Your task to perform on an android device: Go to eBay Image 0: 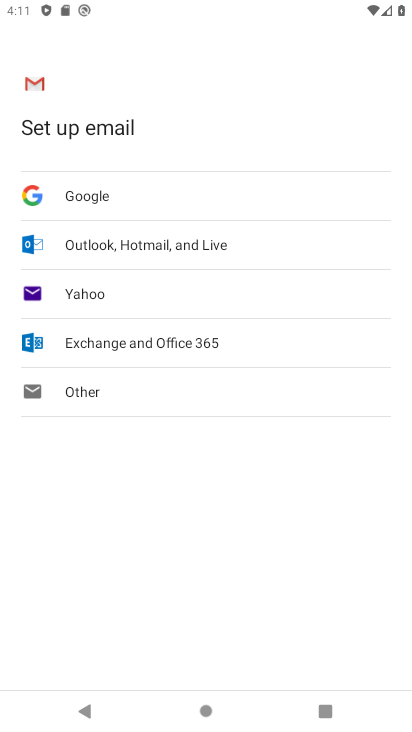
Step 0: press home button
Your task to perform on an android device: Go to eBay Image 1: 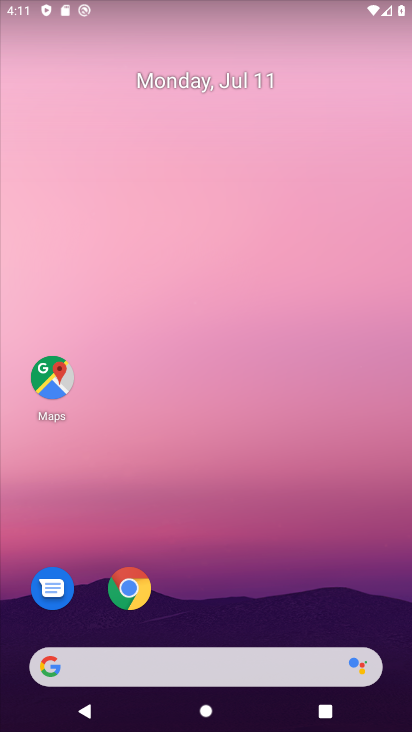
Step 1: click (218, 664)
Your task to perform on an android device: Go to eBay Image 2: 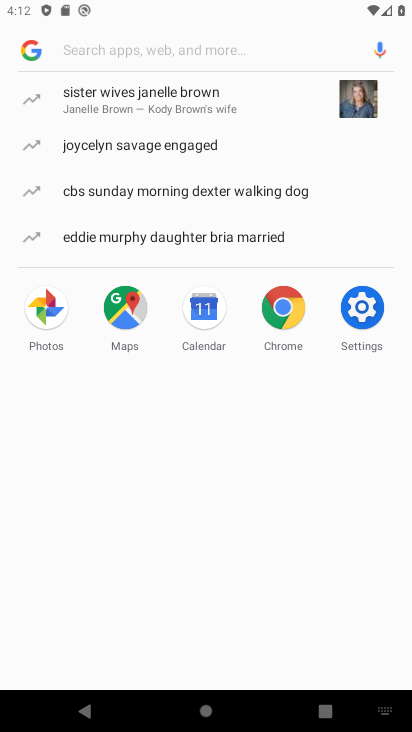
Step 2: type "ebay"
Your task to perform on an android device: Go to eBay Image 3: 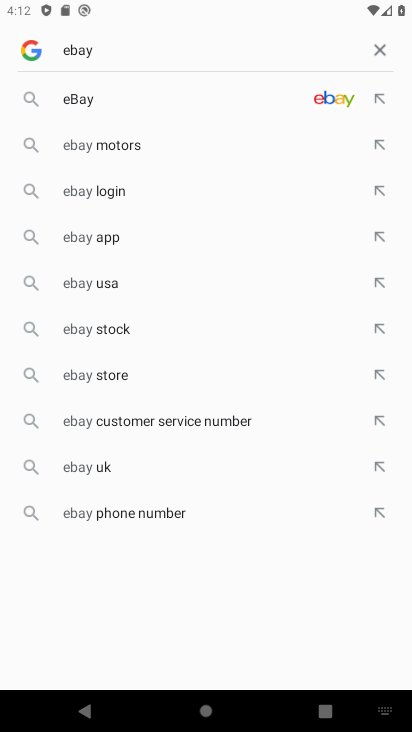
Step 3: click (314, 95)
Your task to perform on an android device: Go to eBay Image 4: 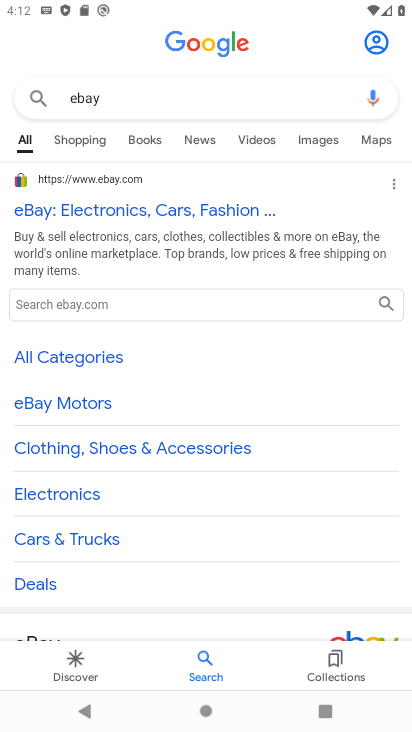
Step 4: click (121, 207)
Your task to perform on an android device: Go to eBay Image 5: 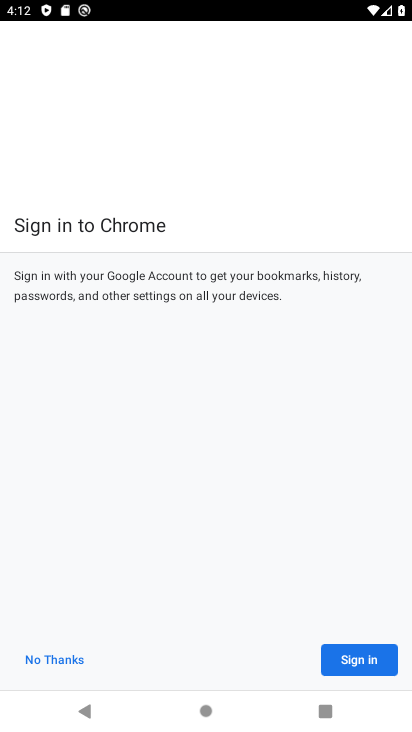
Step 5: click (370, 668)
Your task to perform on an android device: Go to eBay Image 6: 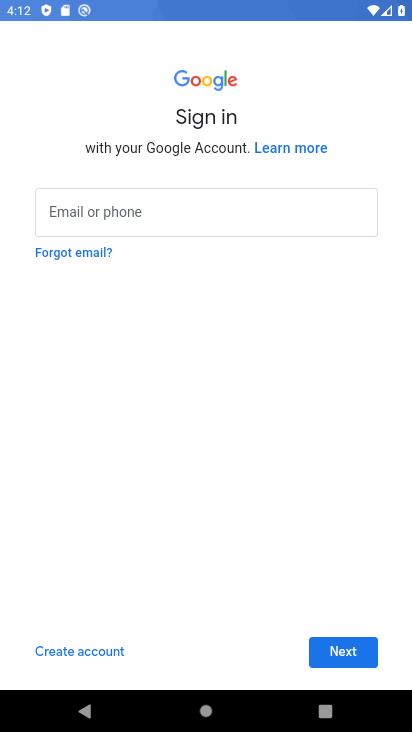
Step 6: task complete